Your task to perform on an android device: Search for pizza restaurants on Maps Image 0: 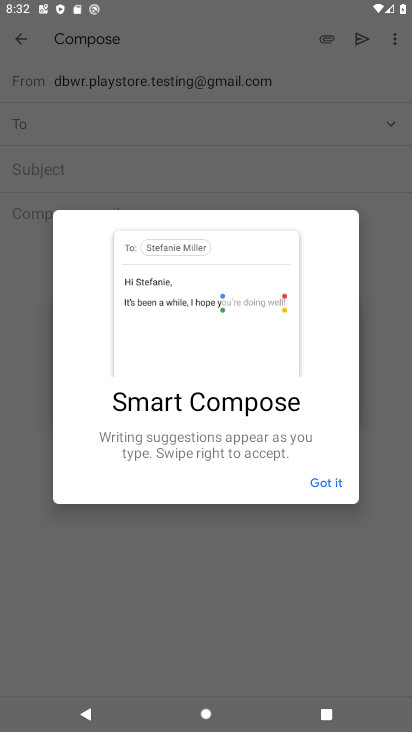
Step 0: press home button
Your task to perform on an android device: Search for pizza restaurants on Maps Image 1: 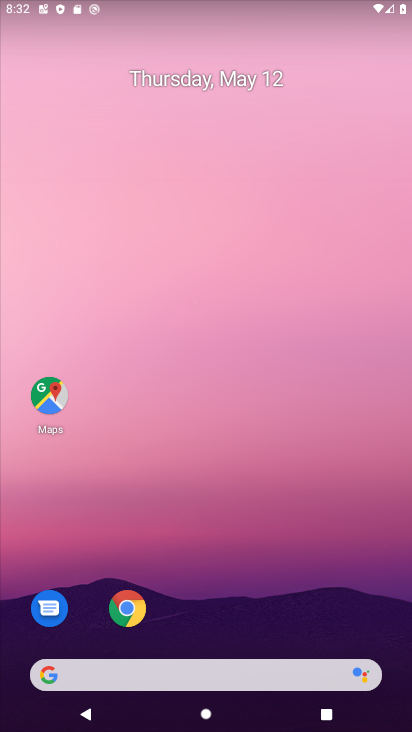
Step 1: click (44, 396)
Your task to perform on an android device: Search for pizza restaurants on Maps Image 2: 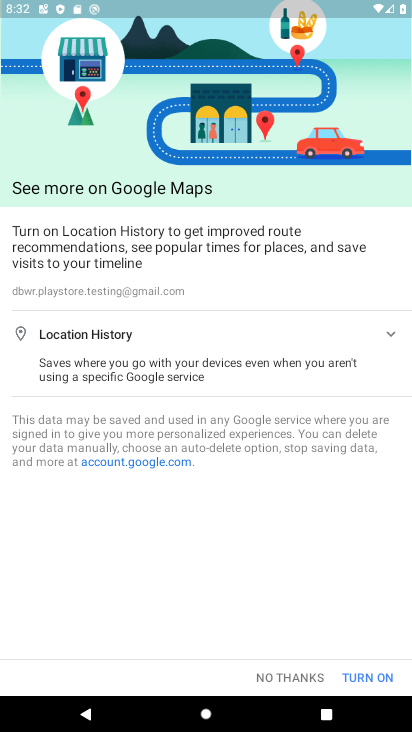
Step 2: click (289, 675)
Your task to perform on an android device: Search for pizza restaurants on Maps Image 3: 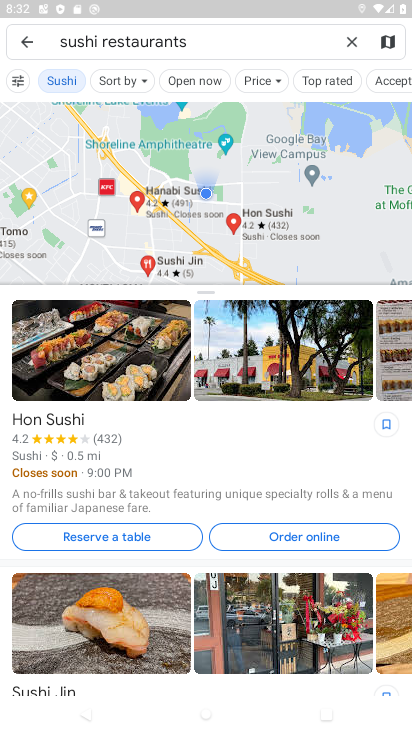
Step 3: click (355, 43)
Your task to perform on an android device: Search for pizza restaurants on Maps Image 4: 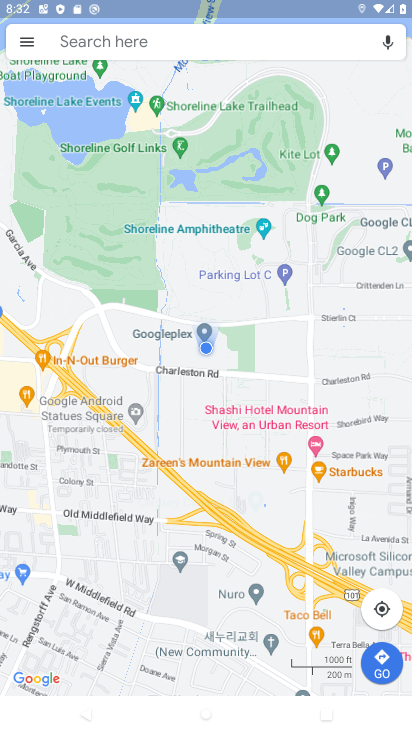
Step 4: click (217, 43)
Your task to perform on an android device: Search for pizza restaurants on Maps Image 5: 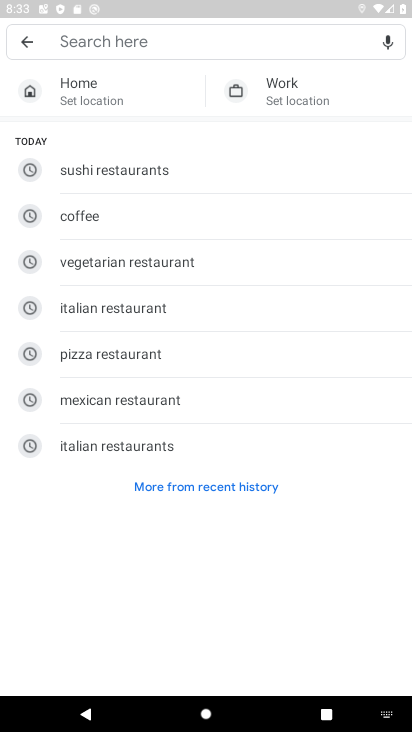
Step 5: type "Pizza restaurants"
Your task to perform on an android device: Search for pizza restaurants on Maps Image 6: 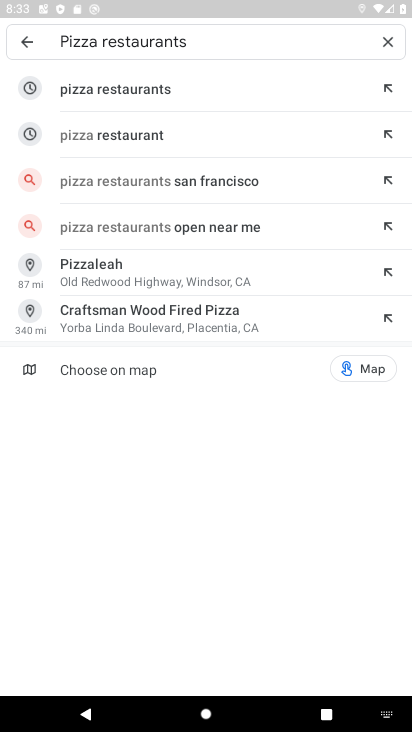
Step 6: click (196, 97)
Your task to perform on an android device: Search for pizza restaurants on Maps Image 7: 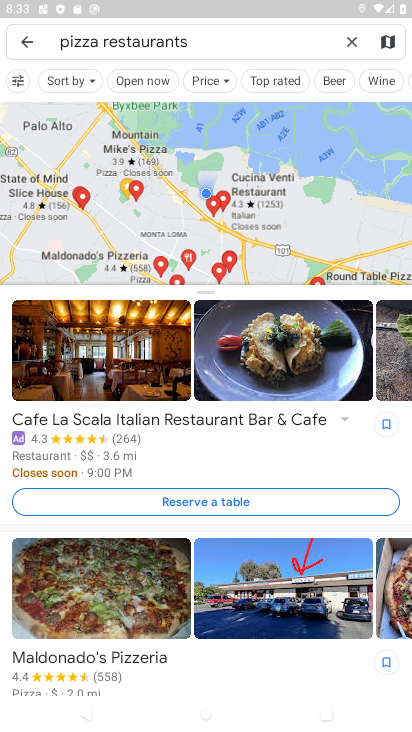
Step 7: task complete